Your task to perform on an android device: Check the news Image 0: 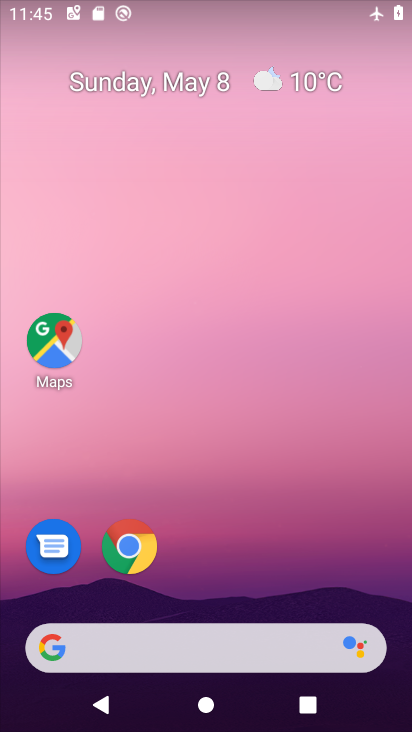
Step 0: drag from (2, 168) to (390, 188)
Your task to perform on an android device: Check the news Image 1: 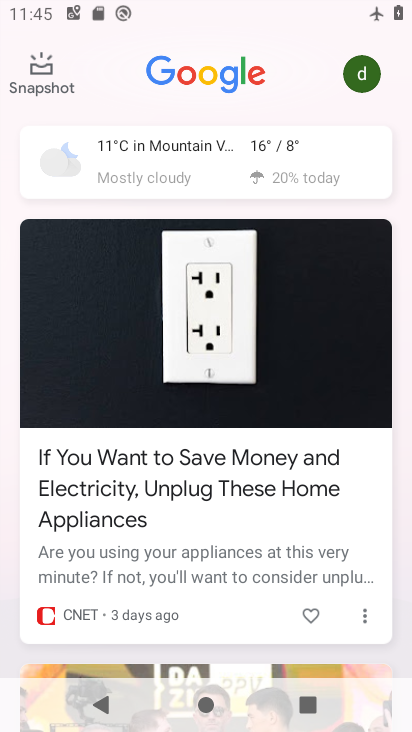
Step 1: task complete